Your task to perform on an android device: View the shopping cart on bestbuy.com. Search for "macbook pro 15 inch" on bestbuy.com, select the first entry, add it to the cart, then select checkout. Image 0: 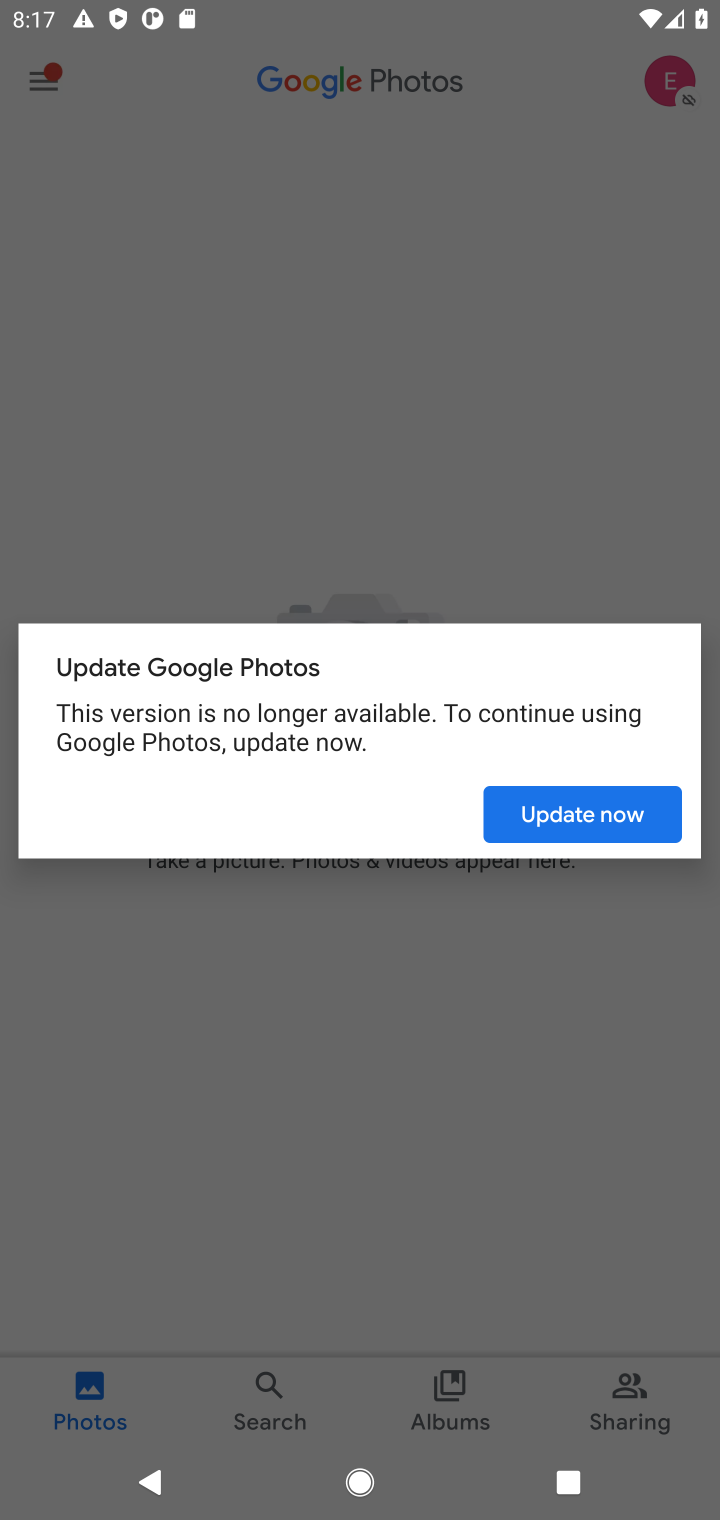
Step 0: press home button
Your task to perform on an android device: View the shopping cart on bestbuy.com. Search for "macbook pro 15 inch" on bestbuy.com, select the first entry, add it to the cart, then select checkout. Image 1: 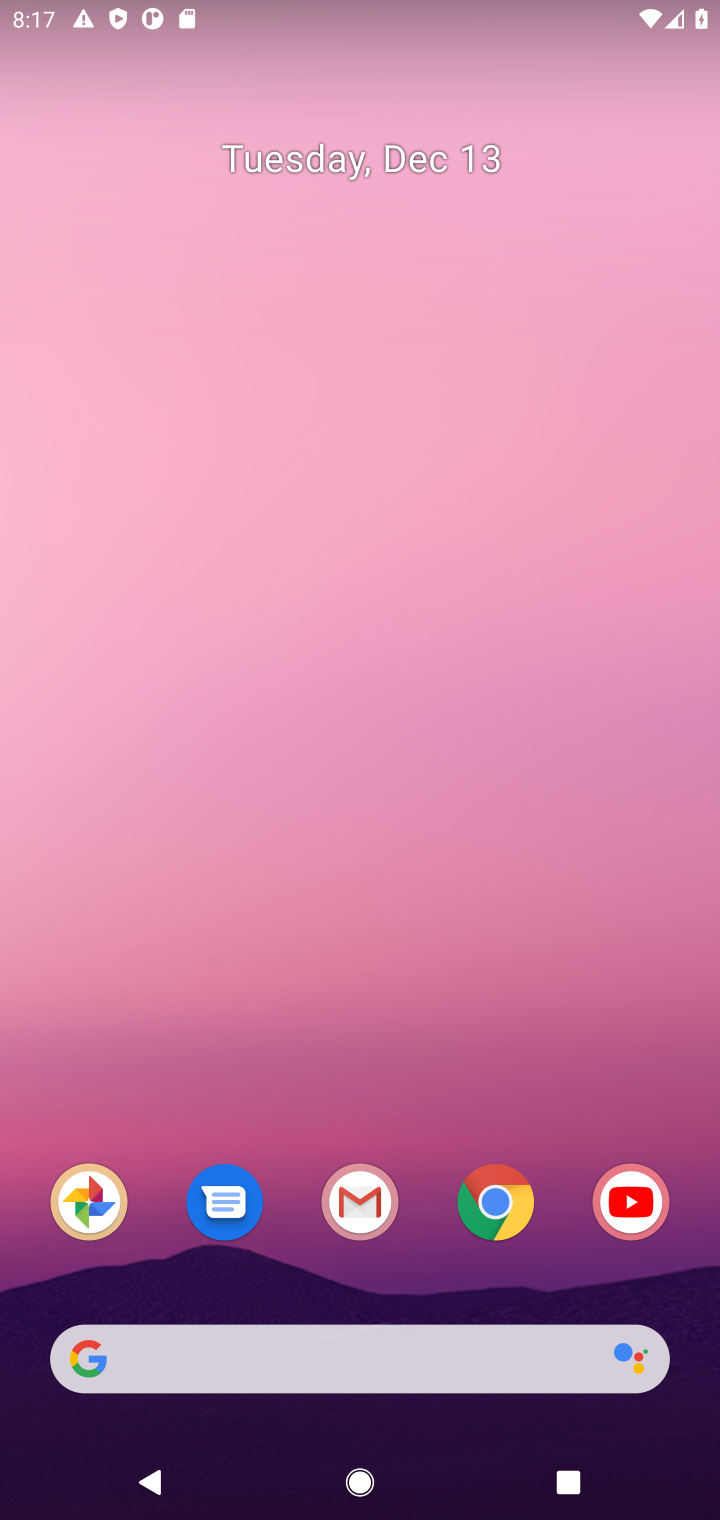
Step 1: click (530, 1217)
Your task to perform on an android device: View the shopping cart on bestbuy.com. Search for "macbook pro 15 inch" on bestbuy.com, select the first entry, add it to the cart, then select checkout. Image 2: 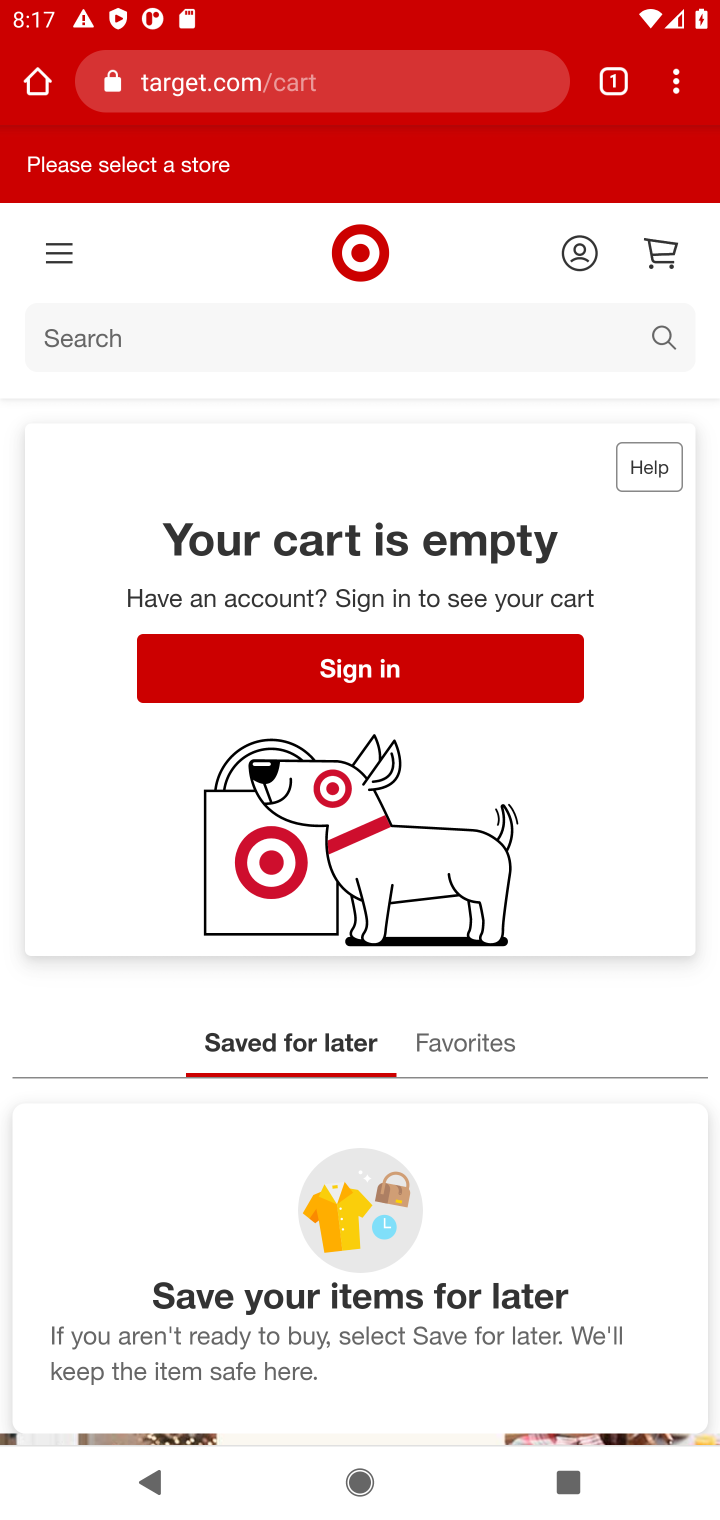
Step 2: click (407, 71)
Your task to perform on an android device: View the shopping cart on bestbuy.com. Search for "macbook pro 15 inch" on bestbuy.com, select the first entry, add it to the cart, then select checkout. Image 3: 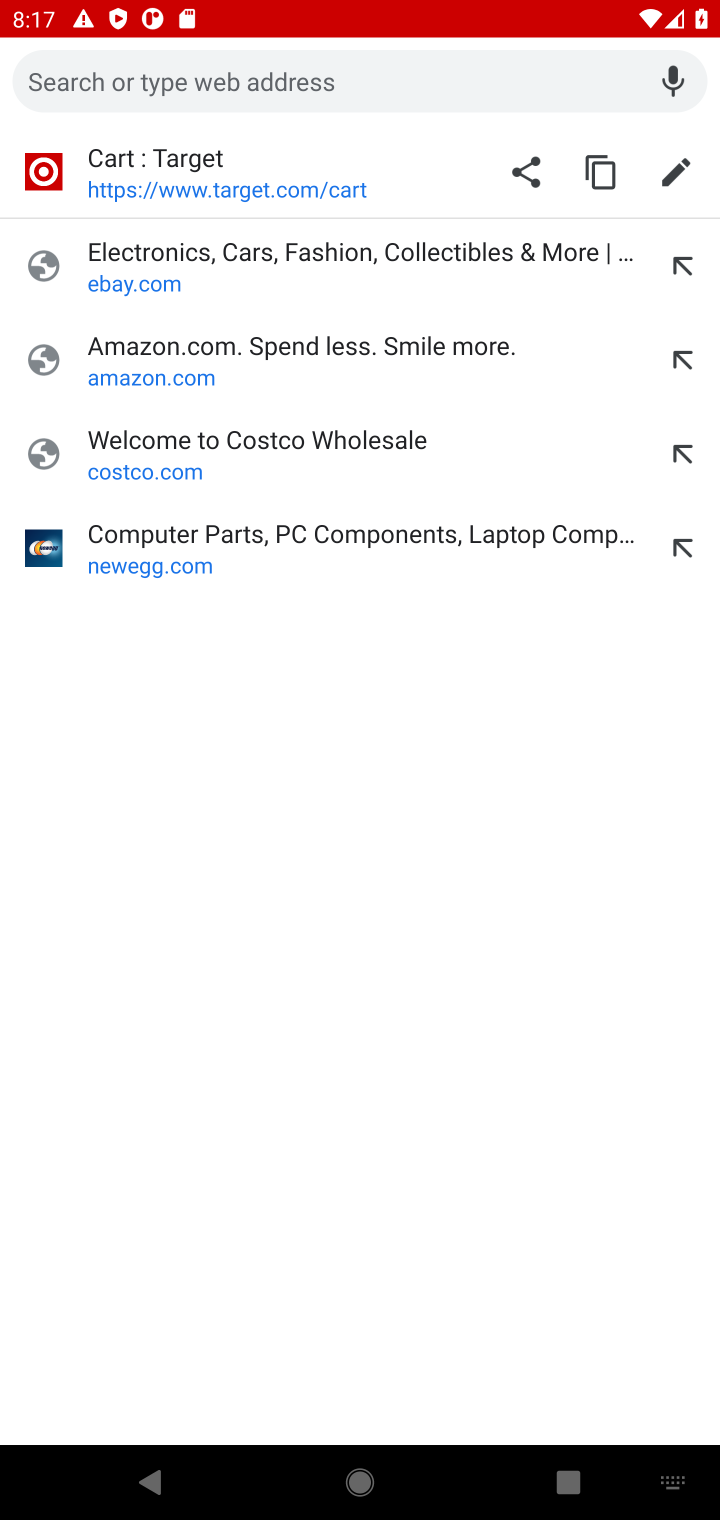
Step 3: type "bestbuy.com"
Your task to perform on an android device: View the shopping cart on bestbuy.com. Search for "macbook pro 15 inch" on bestbuy.com, select the first entry, add it to the cart, then select checkout. Image 4: 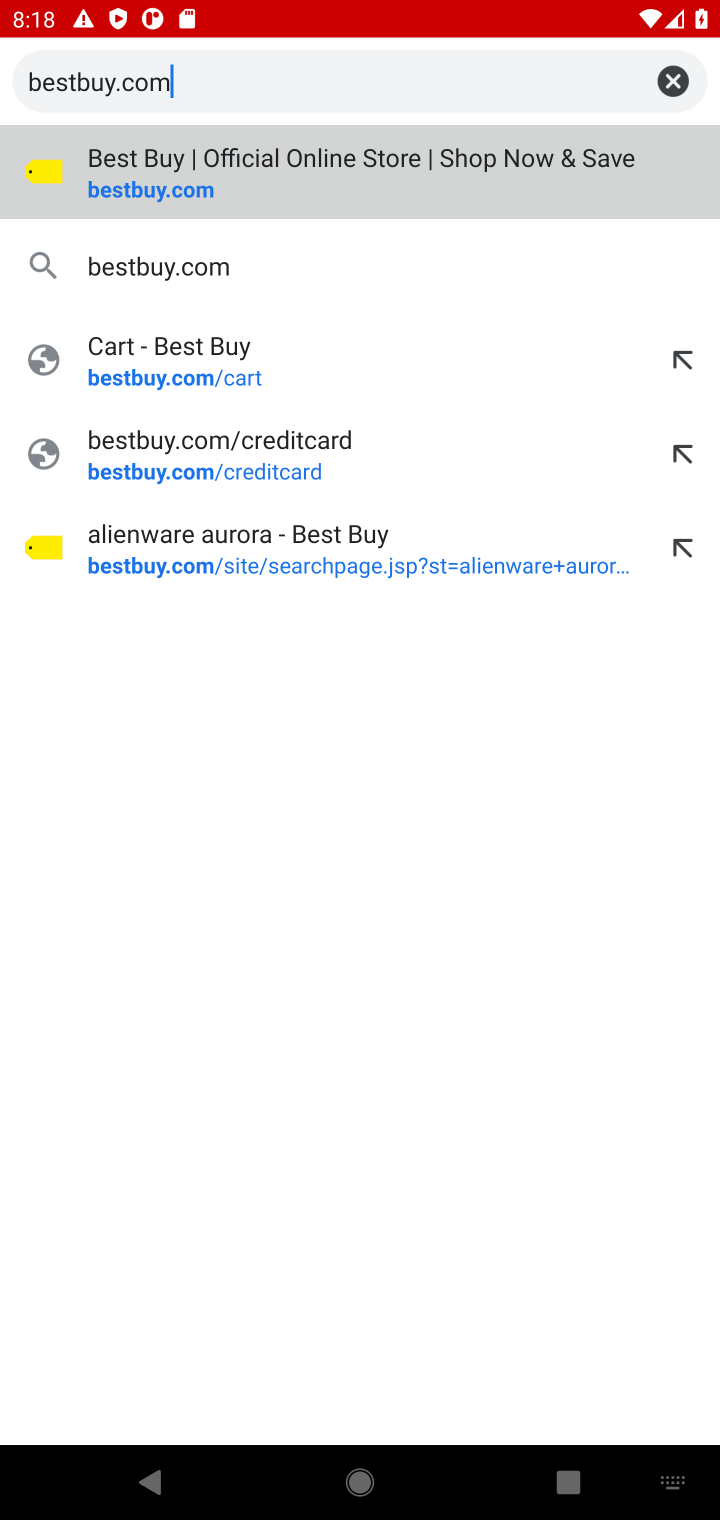
Step 4: click (155, 179)
Your task to perform on an android device: View the shopping cart on bestbuy.com. Search for "macbook pro 15 inch" on bestbuy.com, select the first entry, add it to the cart, then select checkout. Image 5: 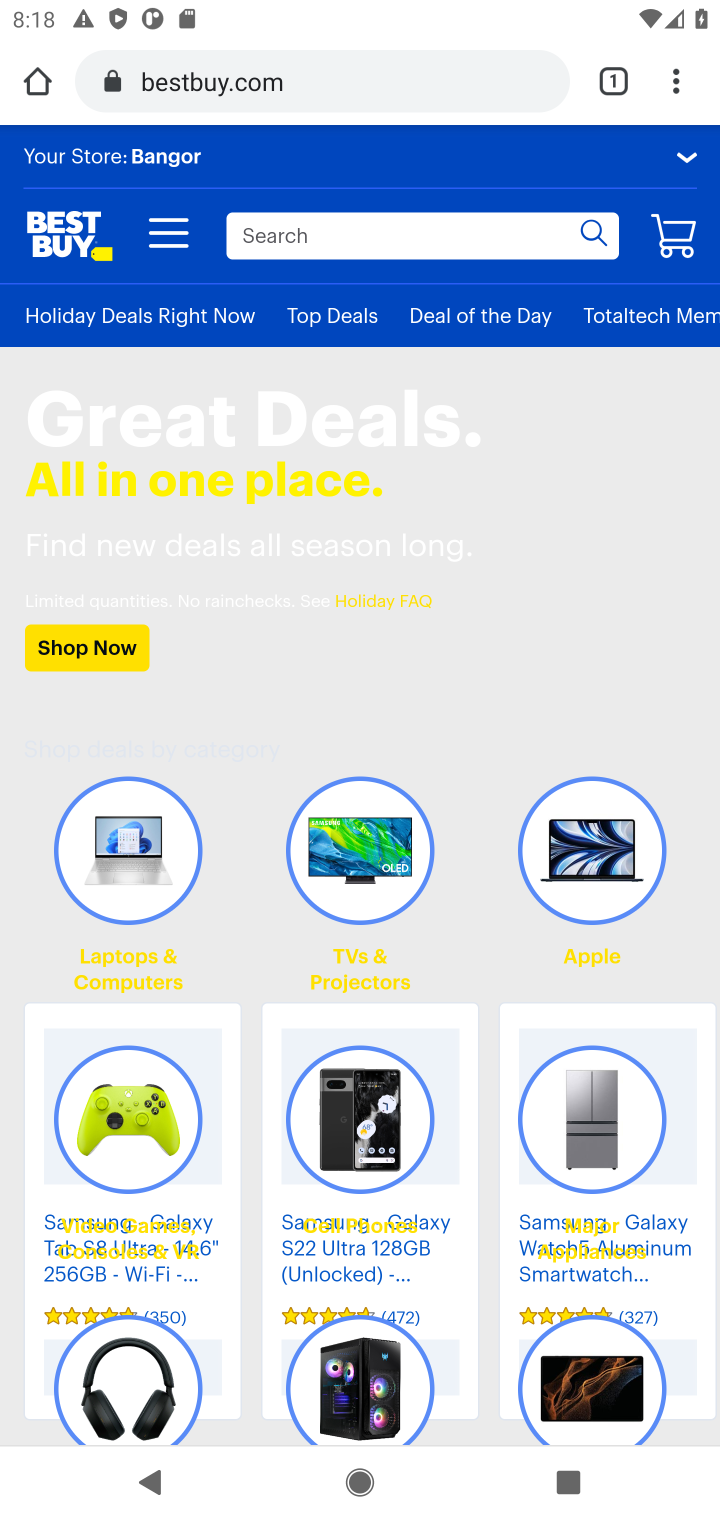
Step 5: click (679, 239)
Your task to perform on an android device: View the shopping cart on bestbuy.com. Search for "macbook pro 15 inch" on bestbuy.com, select the first entry, add it to the cart, then select checkout. Image 6: 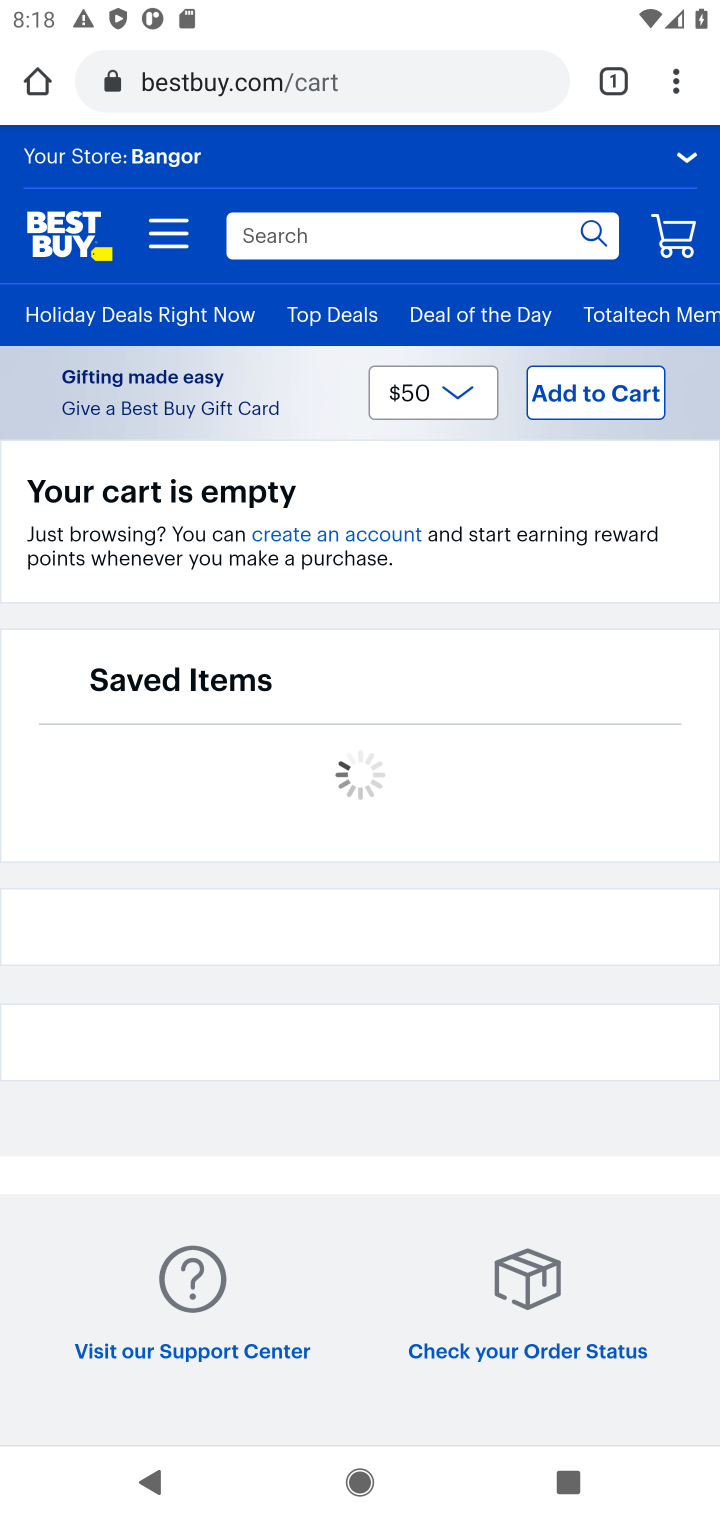
Step 6: click (474, 246)
Your task to perform on an android device: View the shopping cart on bestbuy.com. Search for "macbook pro 15 inch" on bestbuy.com, select the first entry, add it to the cart, then select checkout. Image 7: 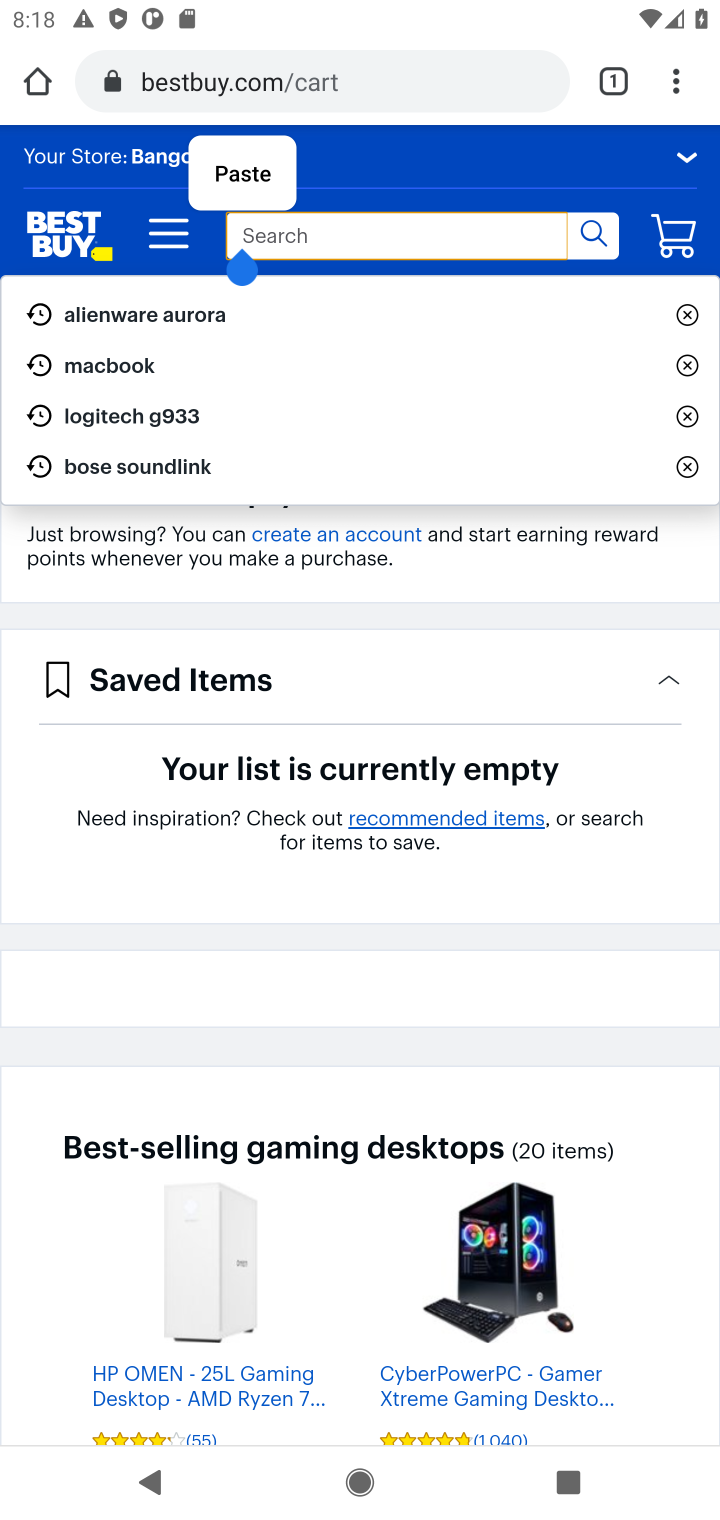
Step 7: type "macbook pro 15 inch"
Your task to perform on an android device: View the shopping cart on bestbuy.com. Search for "macbook pro 15 inch" on bestbuy.com, select the first entry, add it to the cart, then select checkout. Image 8: 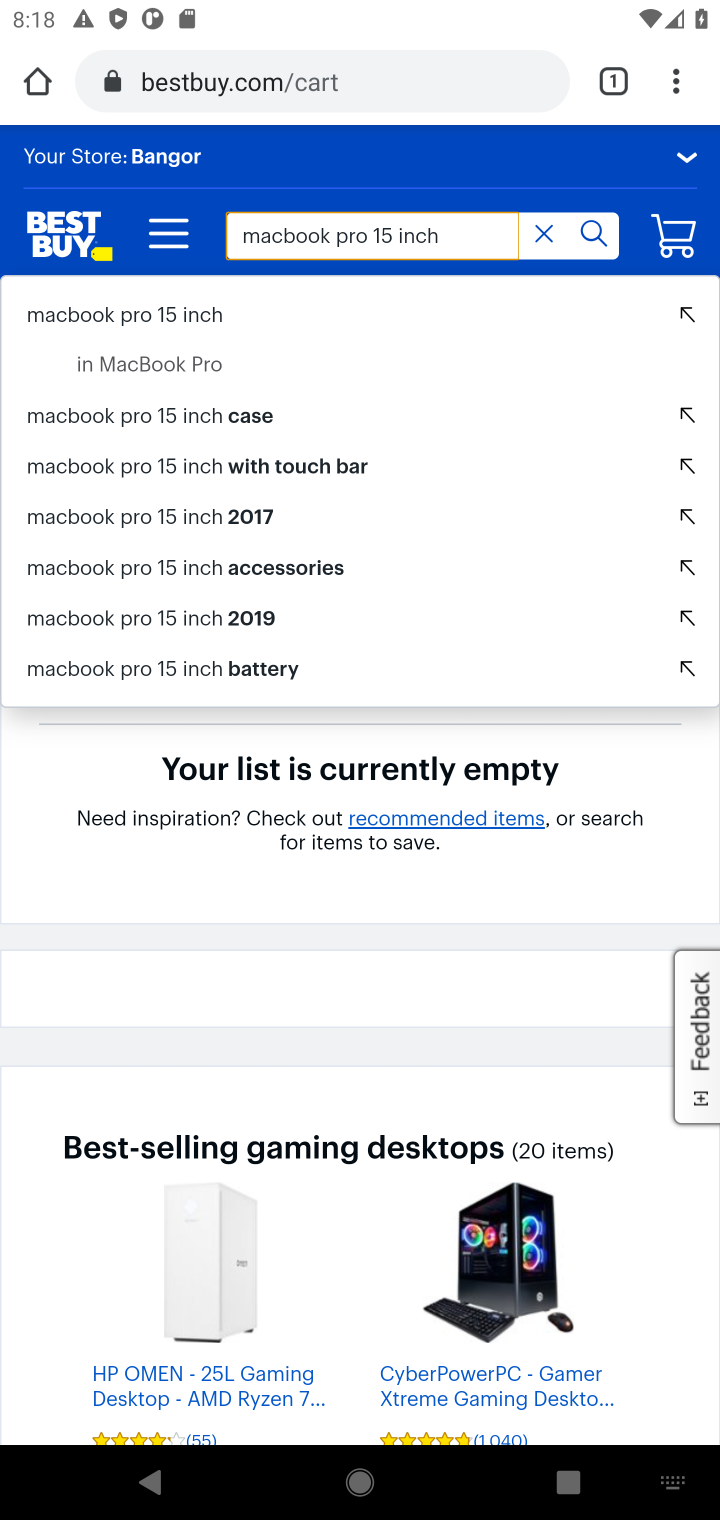
Step 8: click (592, 236)
Your task to perform on an android device: View the shopping cart on bestbuy.com. Search for "macbook pro 15 inch" on bestbuy.com, select the first entry, add it to the cart, then select checkout. Image 9: 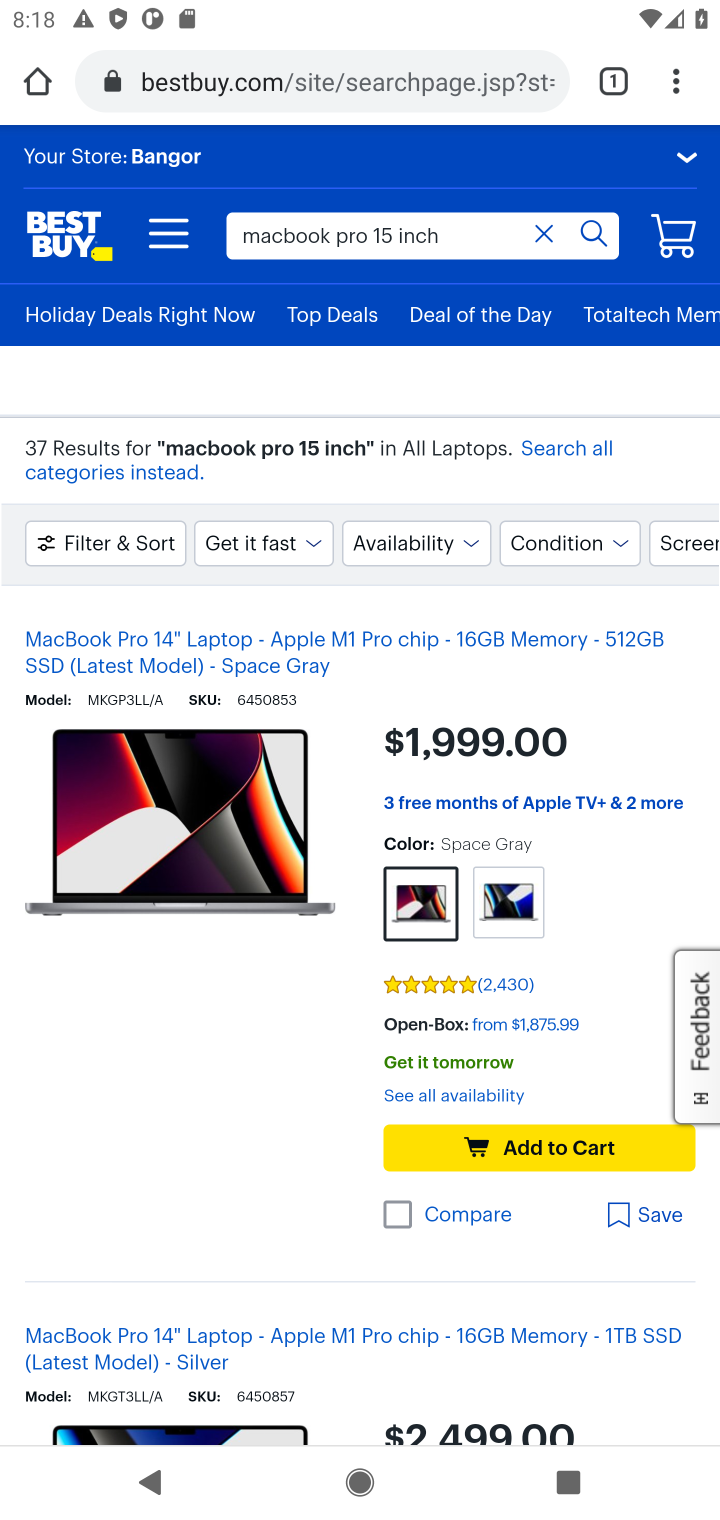
Step 9: task complete